Your task to perform on an android device: toggle translation in the chrome app Image 0: 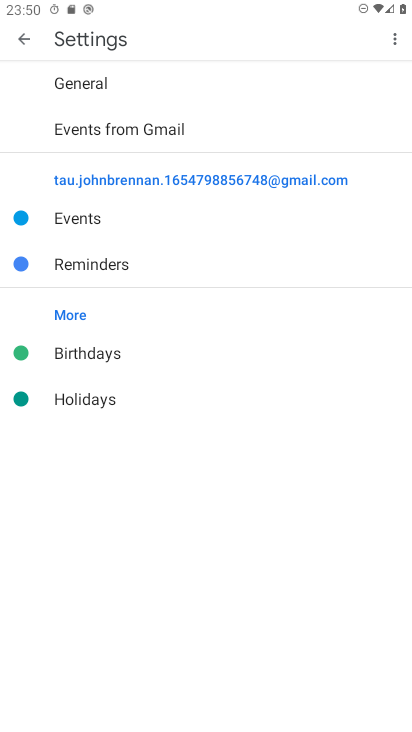
Step 0: press home button
Your task to perform on an android device: toggle translation in the chrome app Image 1: 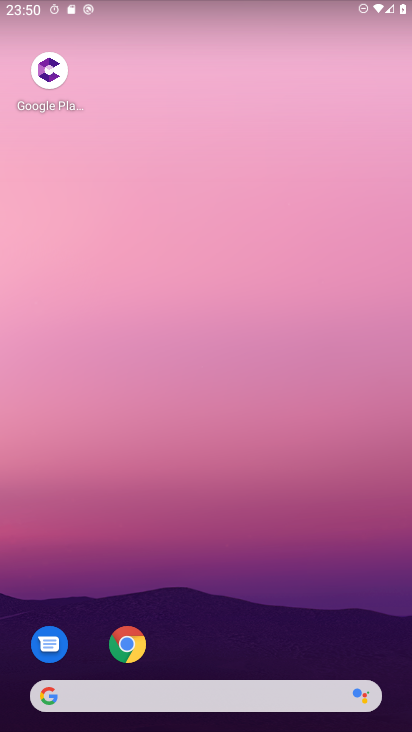
Step 1: click (124, 648)
Your task to perform on an android device: toggle translation in the chrome app Image 2: 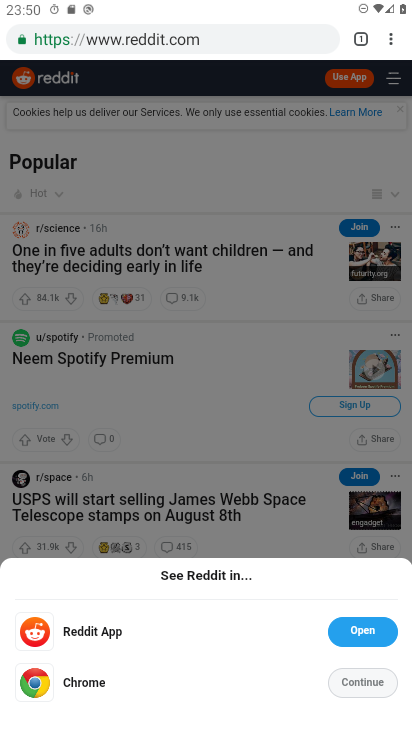
Step 2: drag from (390, 38) to (243, 475)
Your task to perform on an android device: toggle translation in the chrome app Image 3: 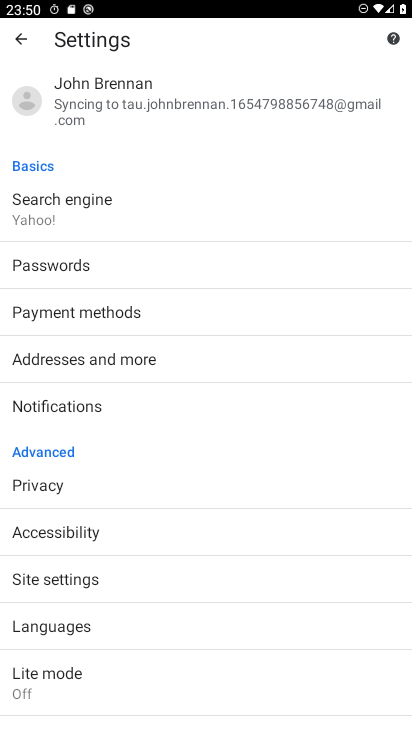
Step 3: click (74, 627)
Your task to perform on an android device: toggle translation in the chrome app Image 4: 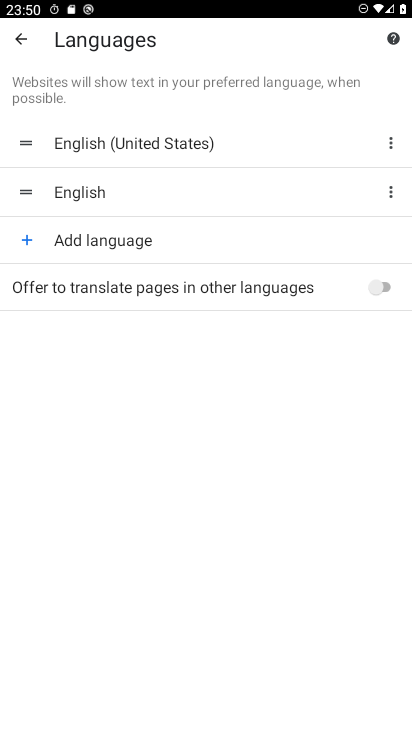
Step 4: click (378, 287)
Your task to perform on an android device: toggle translation in the chrome app Image 5: 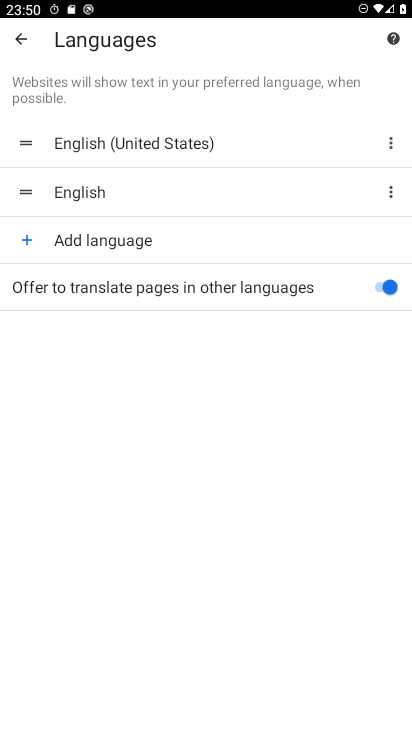
Step 5: task complete